Your task to perform on an android device: open app "Duolingo: language lessons" Image 0: 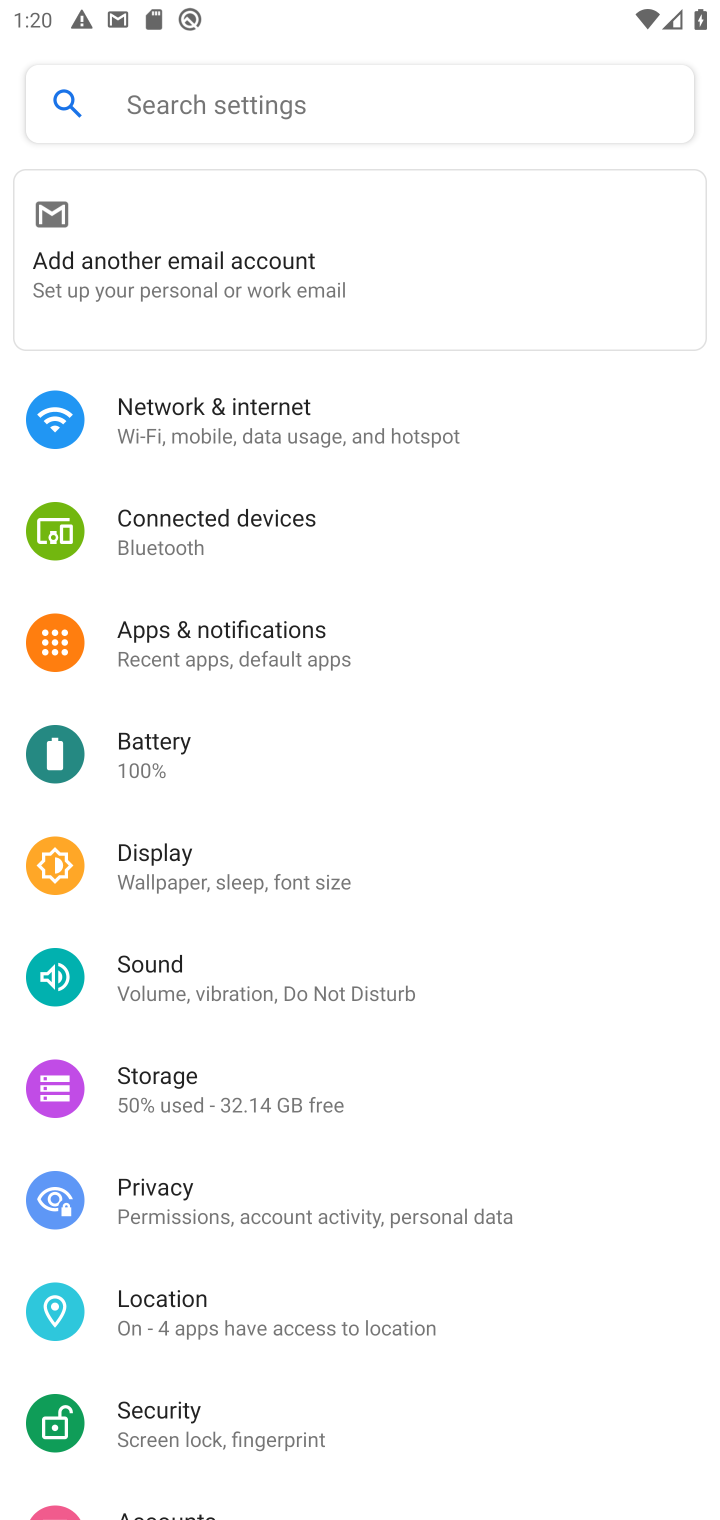
Step 0: press home button
Your task to perform on an android device: open app "Duolingo: language lessons" Image 1: 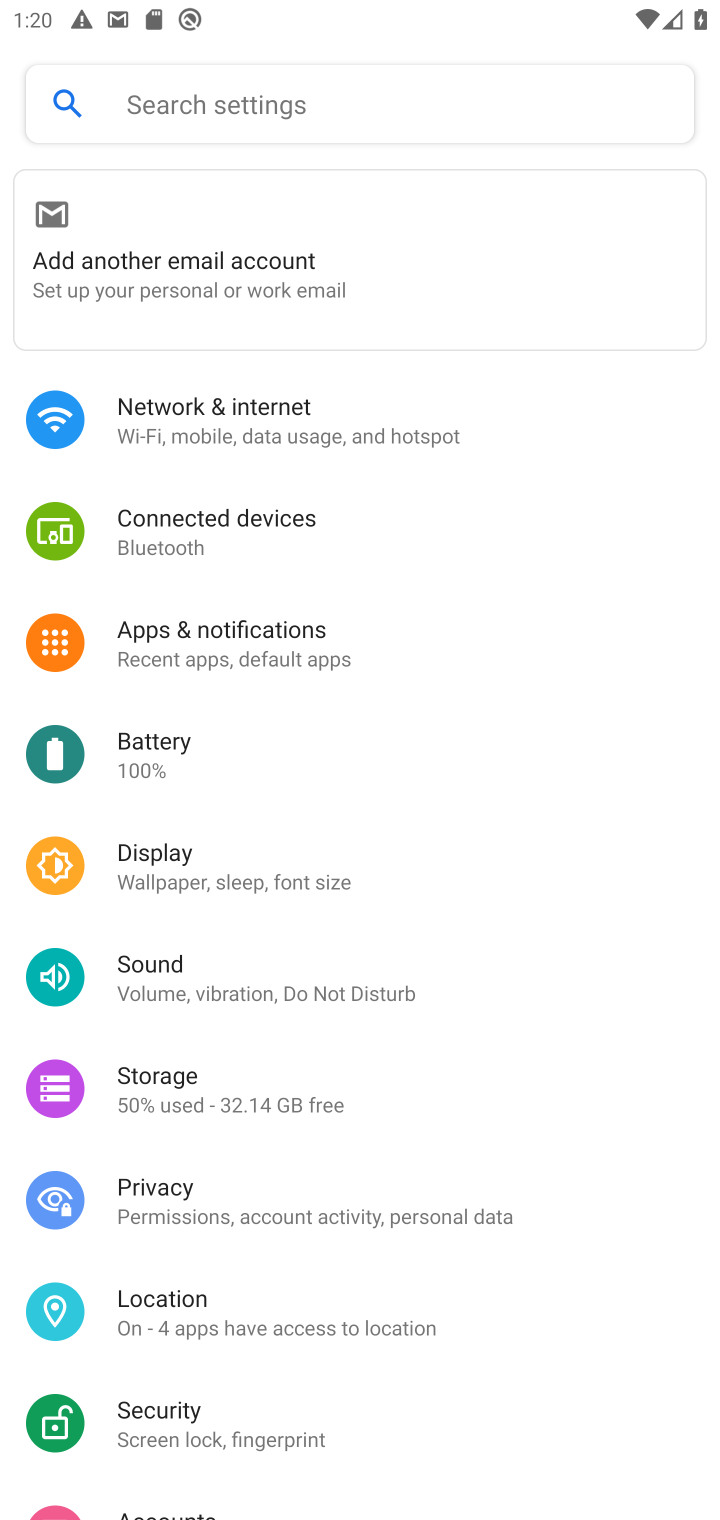
Step 1: press home button
Your task to perform on an android device: open app "Duolingo: language lessons" Image 2: 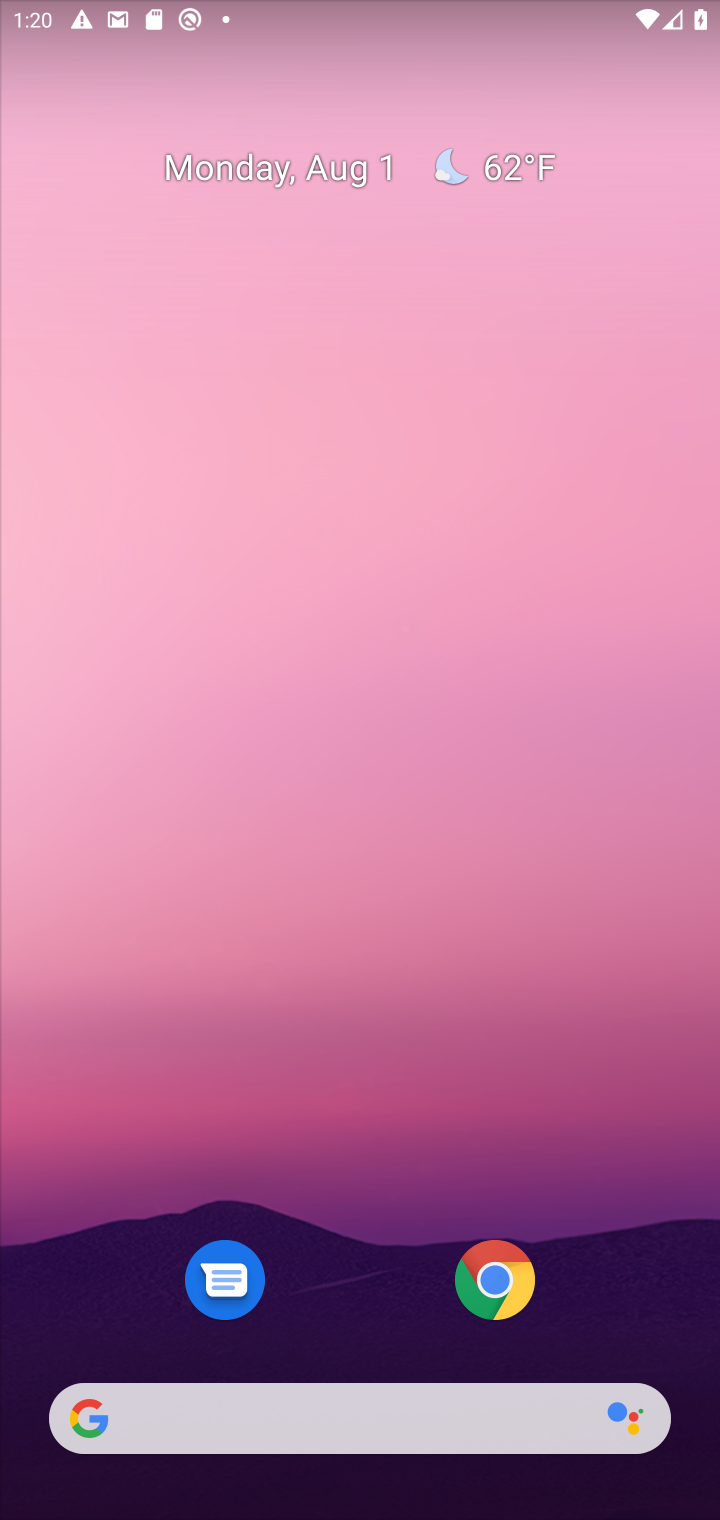
Step 2: drag from (414, 1248) to (472, 93)
Your task to perform on an android device: open app "Duolingo: language lessons" Image 3: 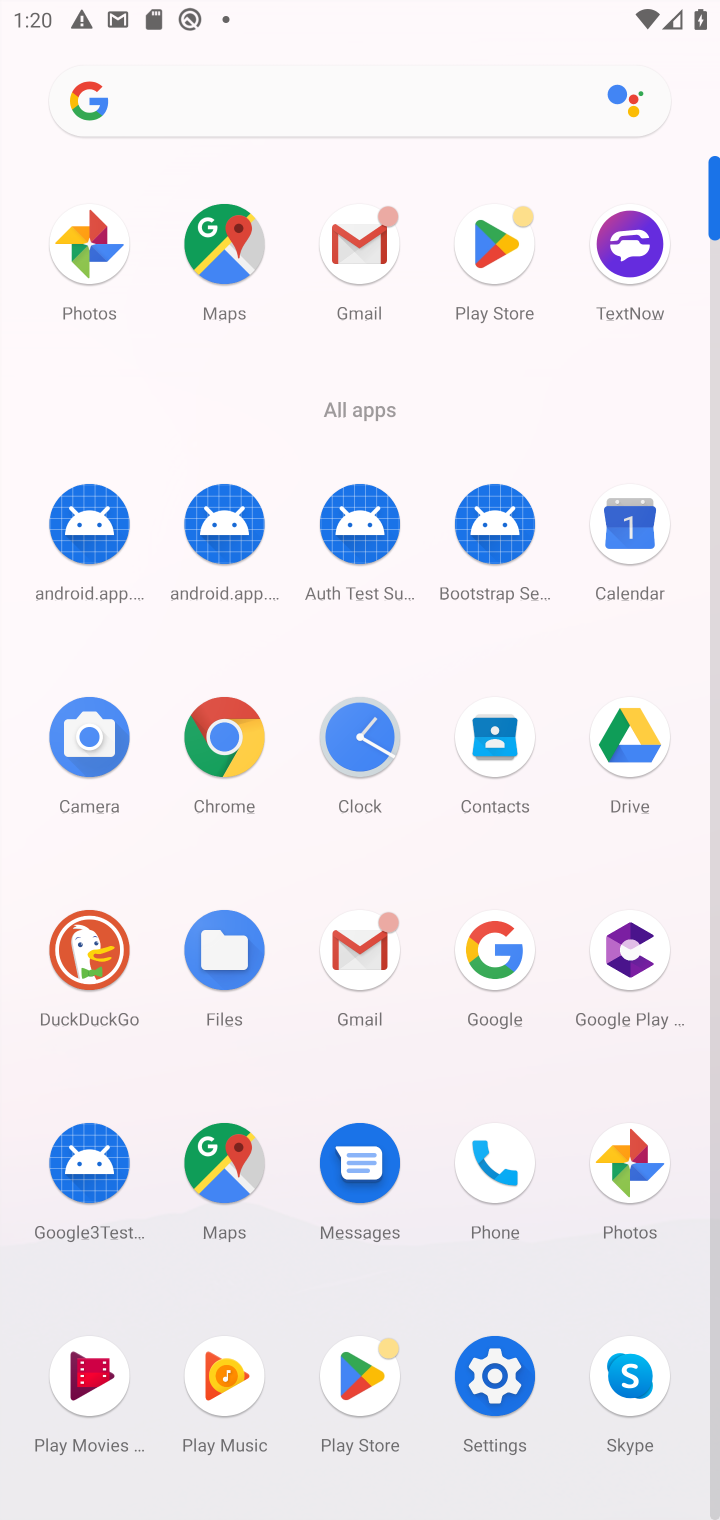
Step 3: click (496, 259)
Your task to perform on an android device: open app "Duolingo: language lessons" Image 4: 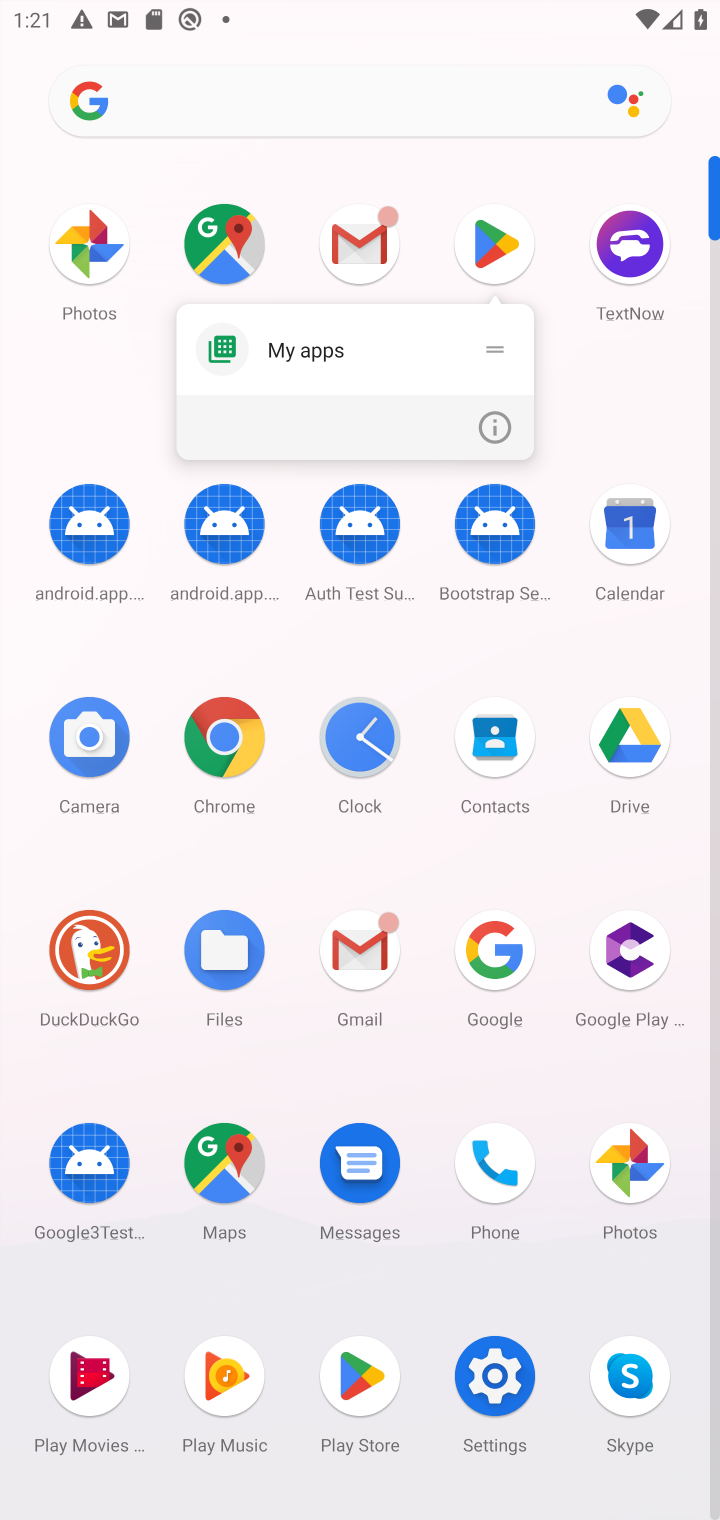
Step 4: click (365, 1382)
Your task to perform on an android device: open app "Duolingo: language lessons" Image 5: 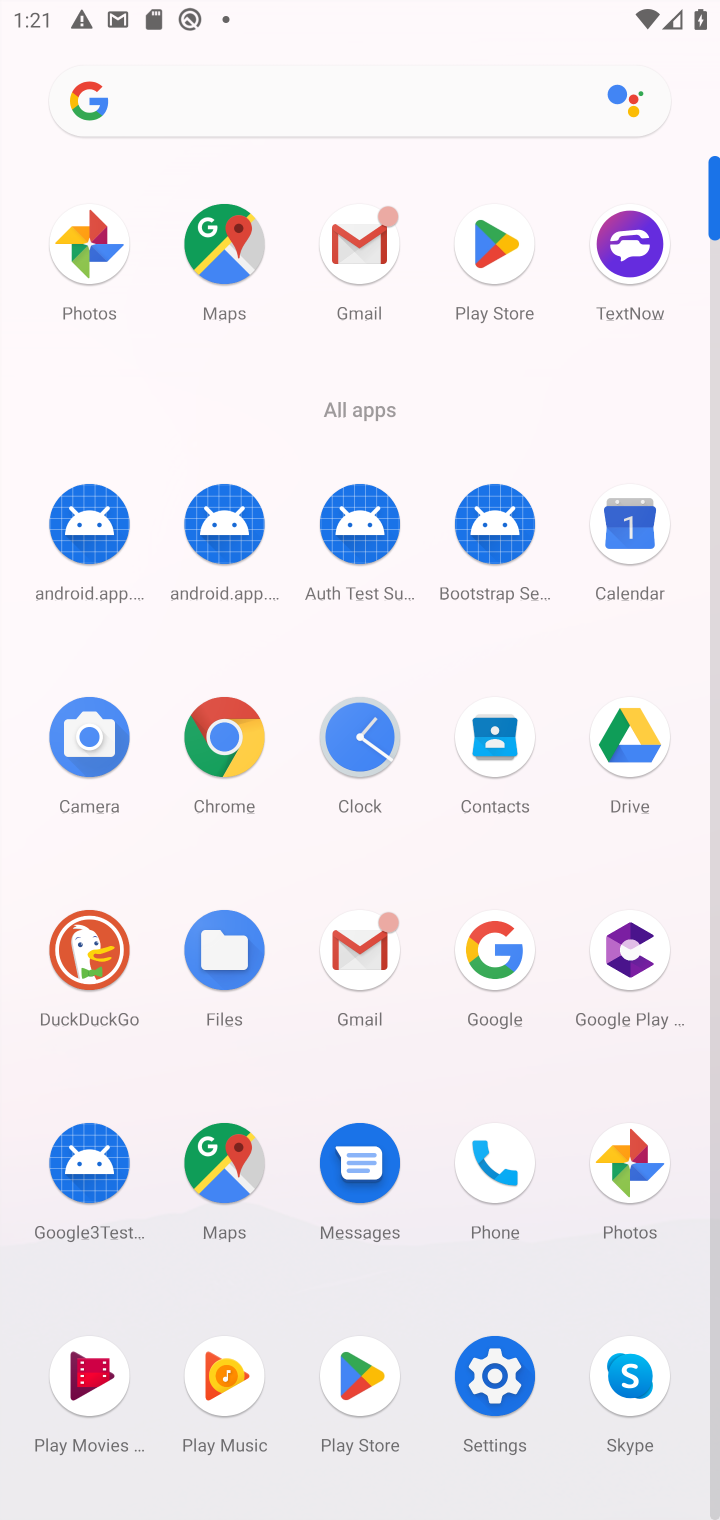
Step 5: click (355, 1354)
Your task to perform on an android device: open app "Duolingo: language lessons" Image 6: 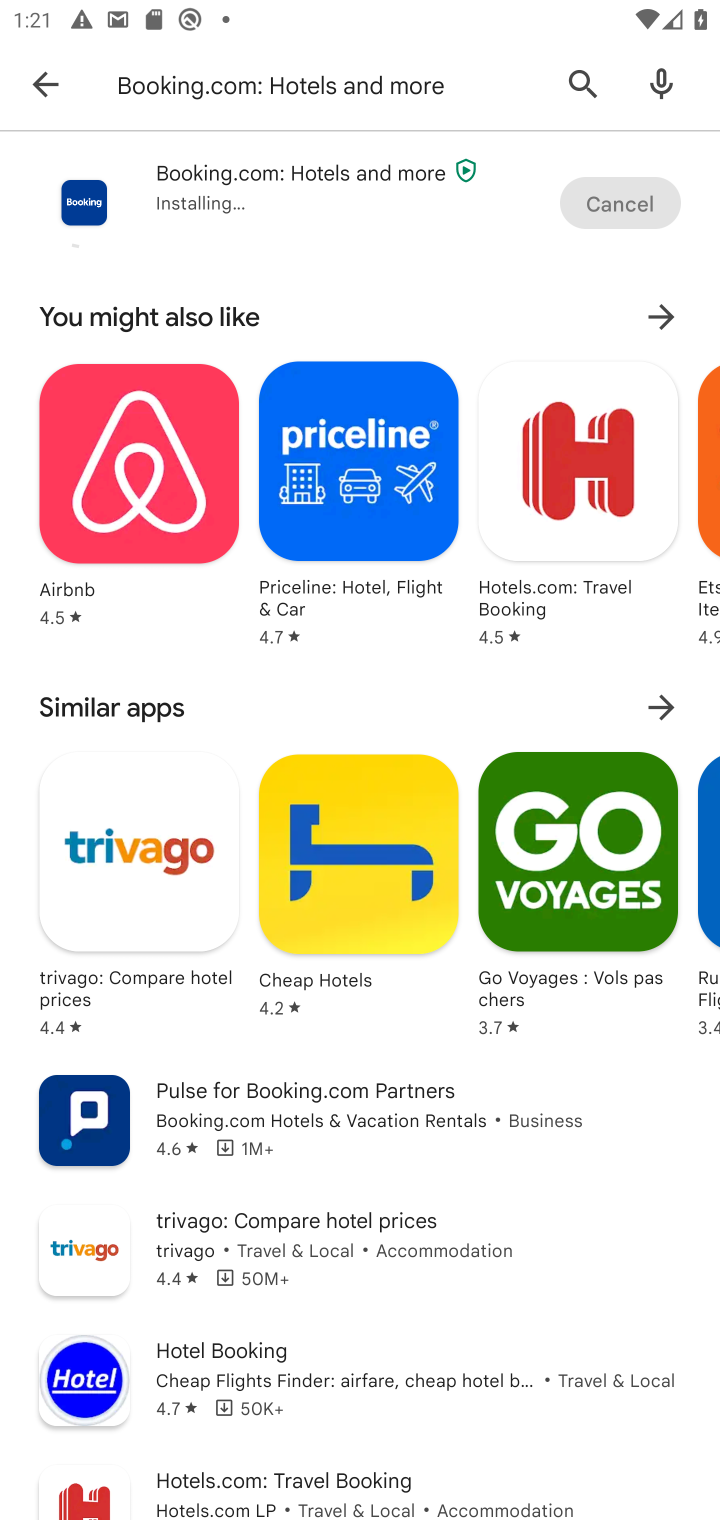
Step 6: click (428, 72)
Your task to perform on an android device: open app "Duolingo: language lessons" Image 7: 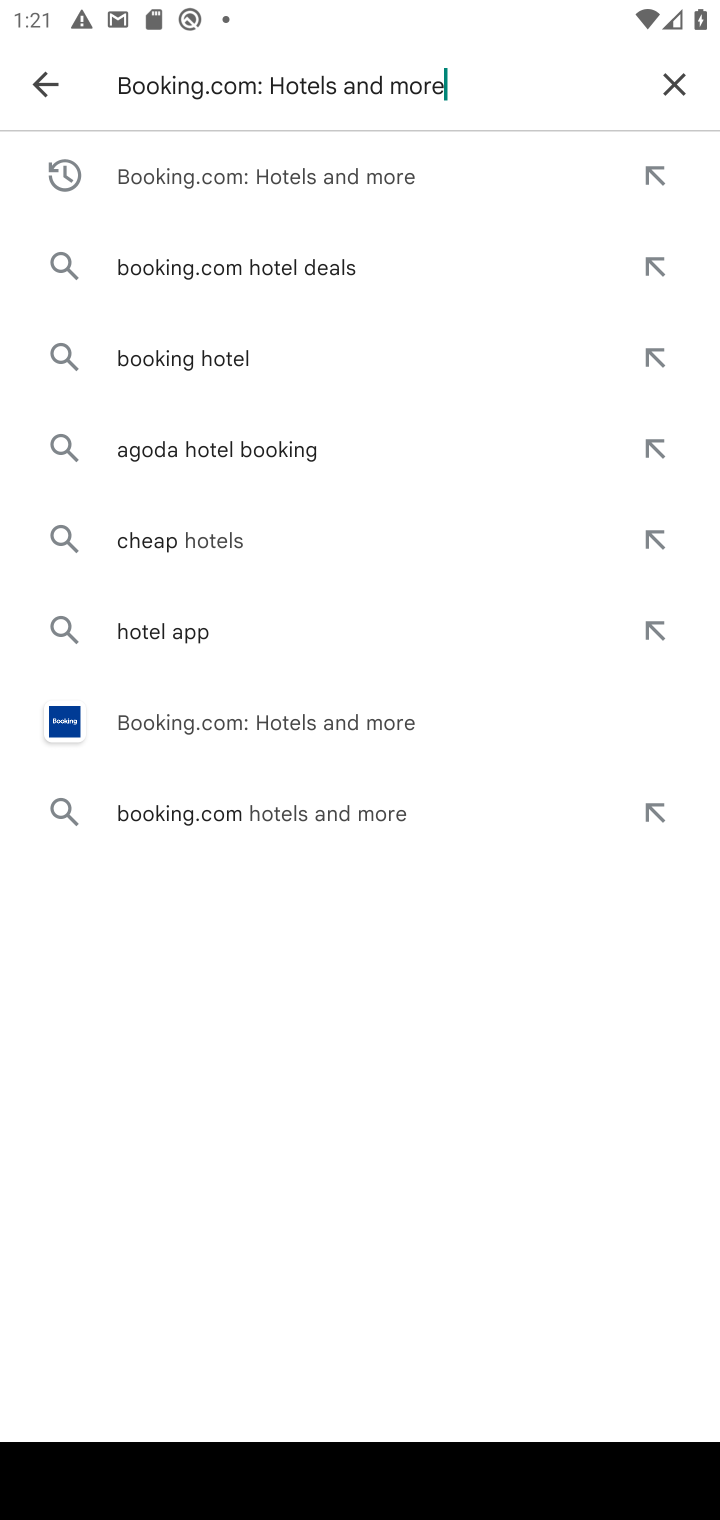
Step 7: click (678, 86)
Your task to perform on an android device: open app "Duolingo: language lessons" Image 8: 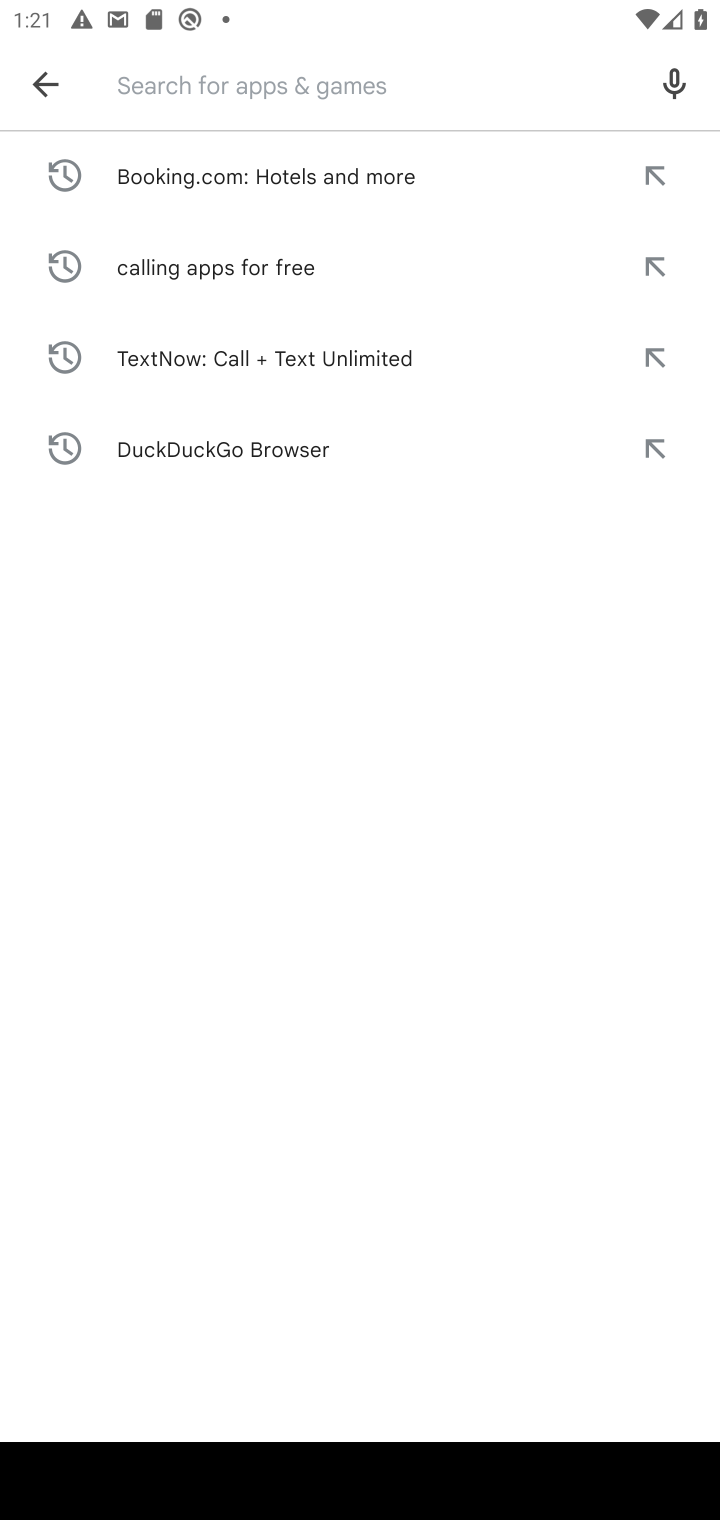
Step 8: type "Duolingo: Language lessons"
Your task to perform on an android device: open app "Duolingo: language lessons" Image 9: 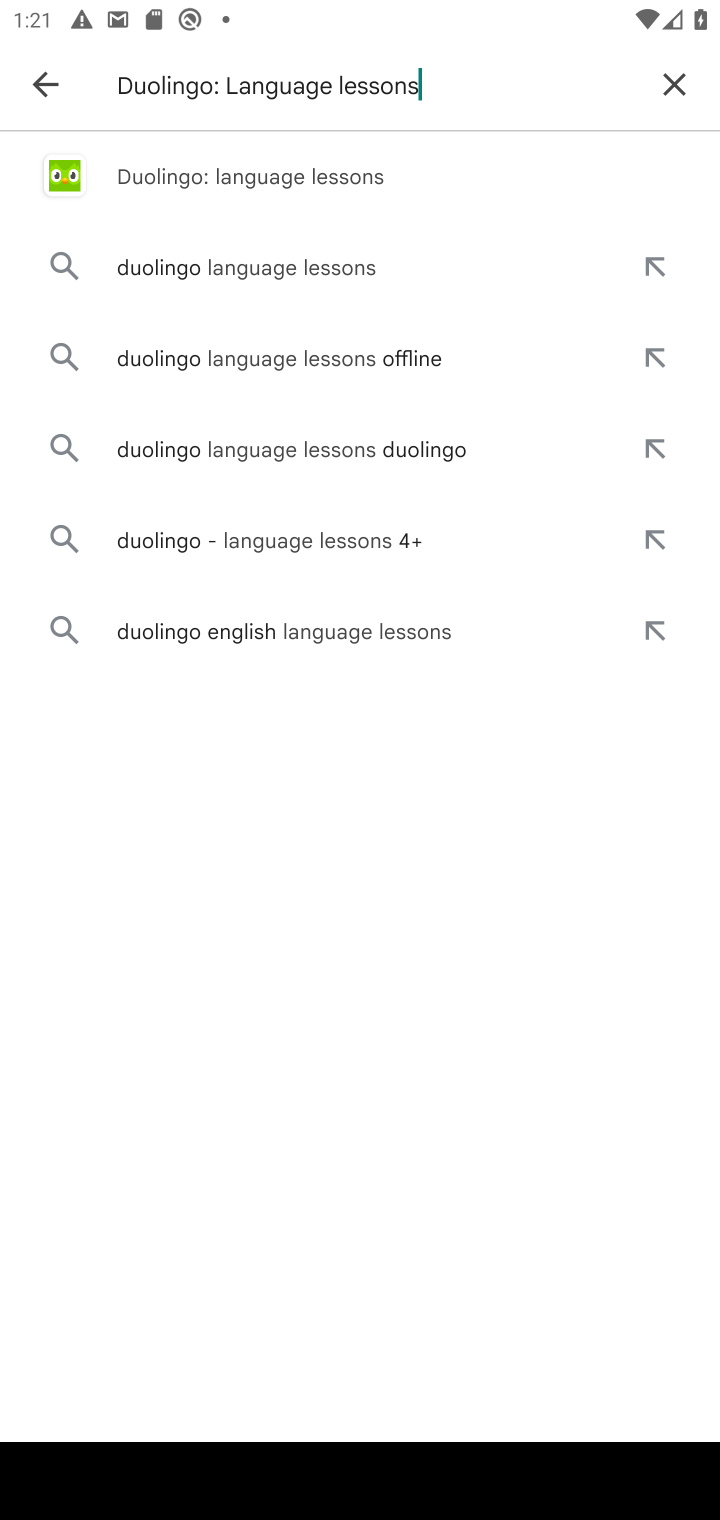
Step 9: click (485, 174)
Your task to perform on an android device: open app "Duolingo: language lessons" Image 10: 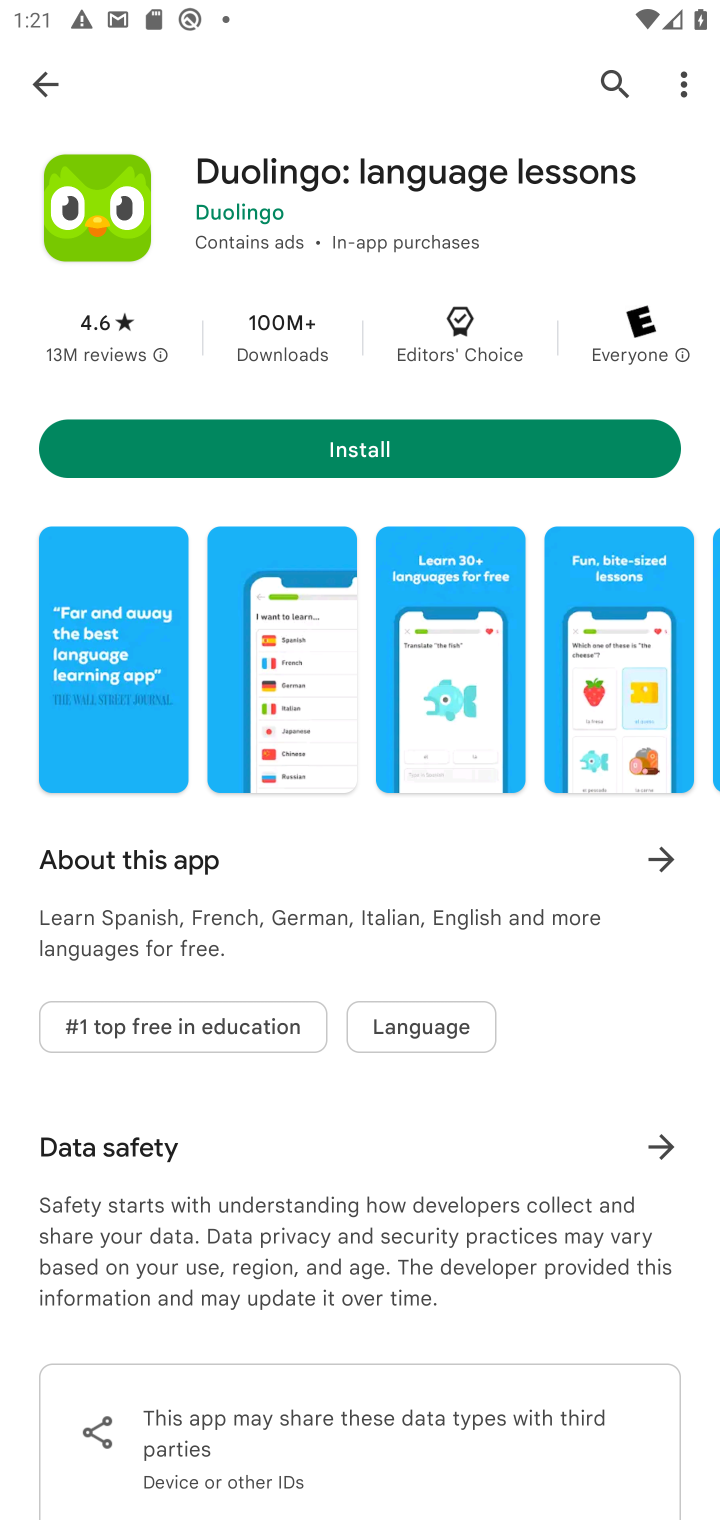
Step 10: task complete